Your task to perform on an android device: Search for "alienware area 51" on ebay.com, select the first entry, and add it to the cart. Image 0: 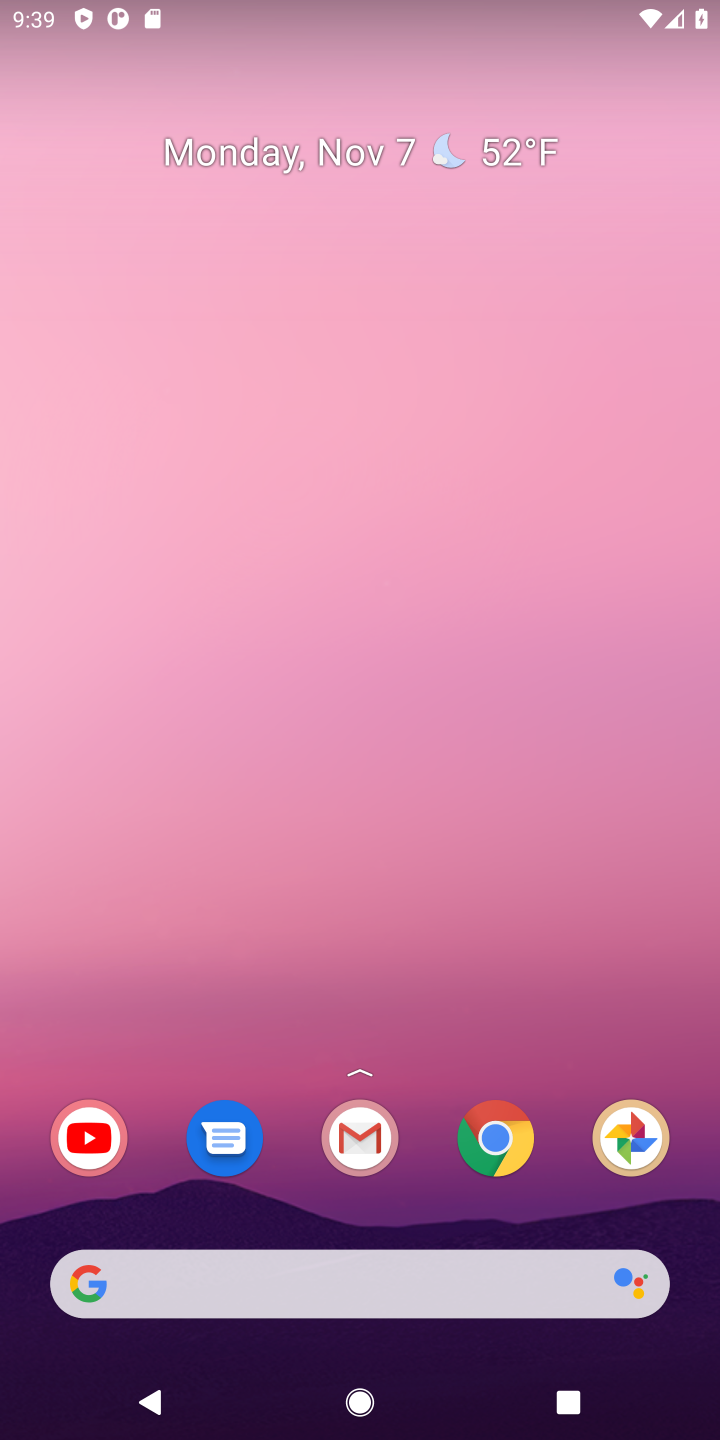
Step 0: drag from (425, 1129) to (428, 456)
Your task to perform on an android device: Search for "alienware area 51" on ebay.com, select the first entry, and add it to the cart. Image 1: 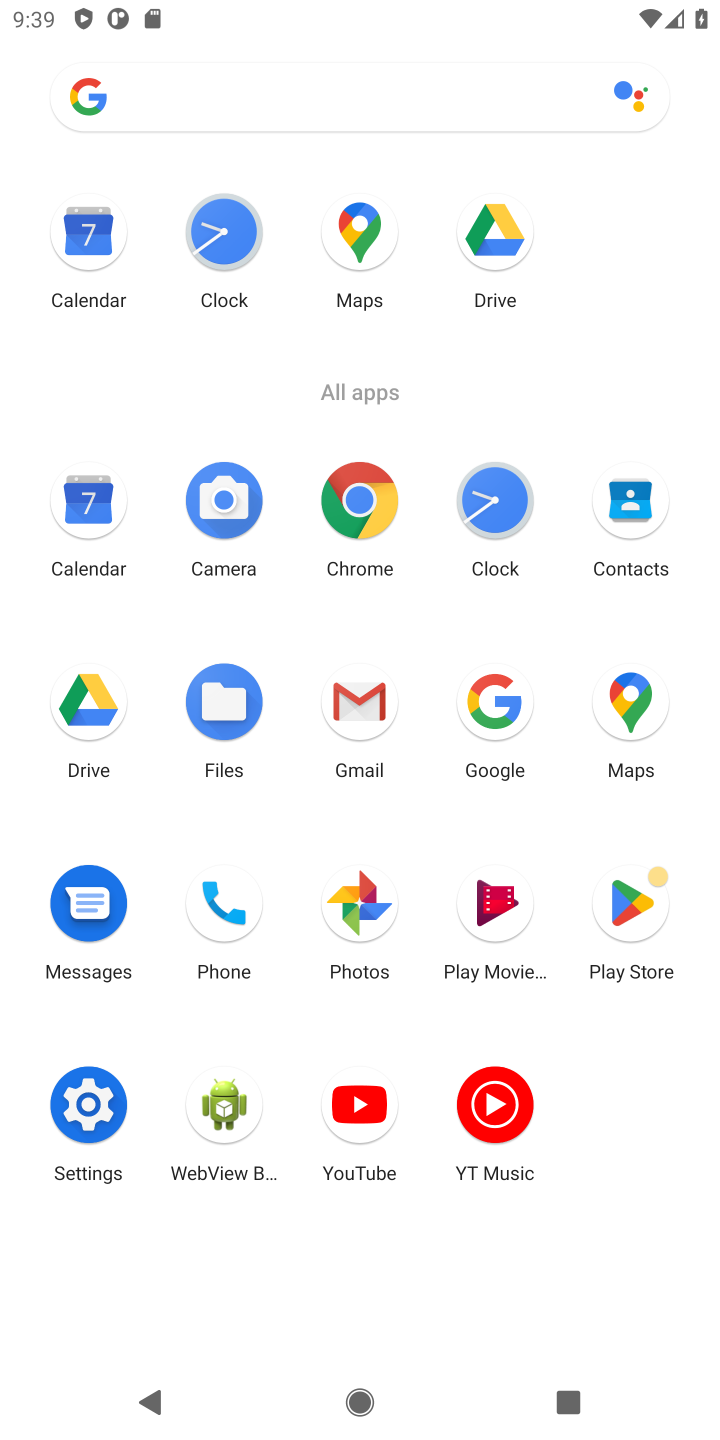
Step 1: click (509, 701)
Your task to perform on an android device: Search for "alienware area 51" on ebay.com, select the first entry, and add it to the cart. Image 2: 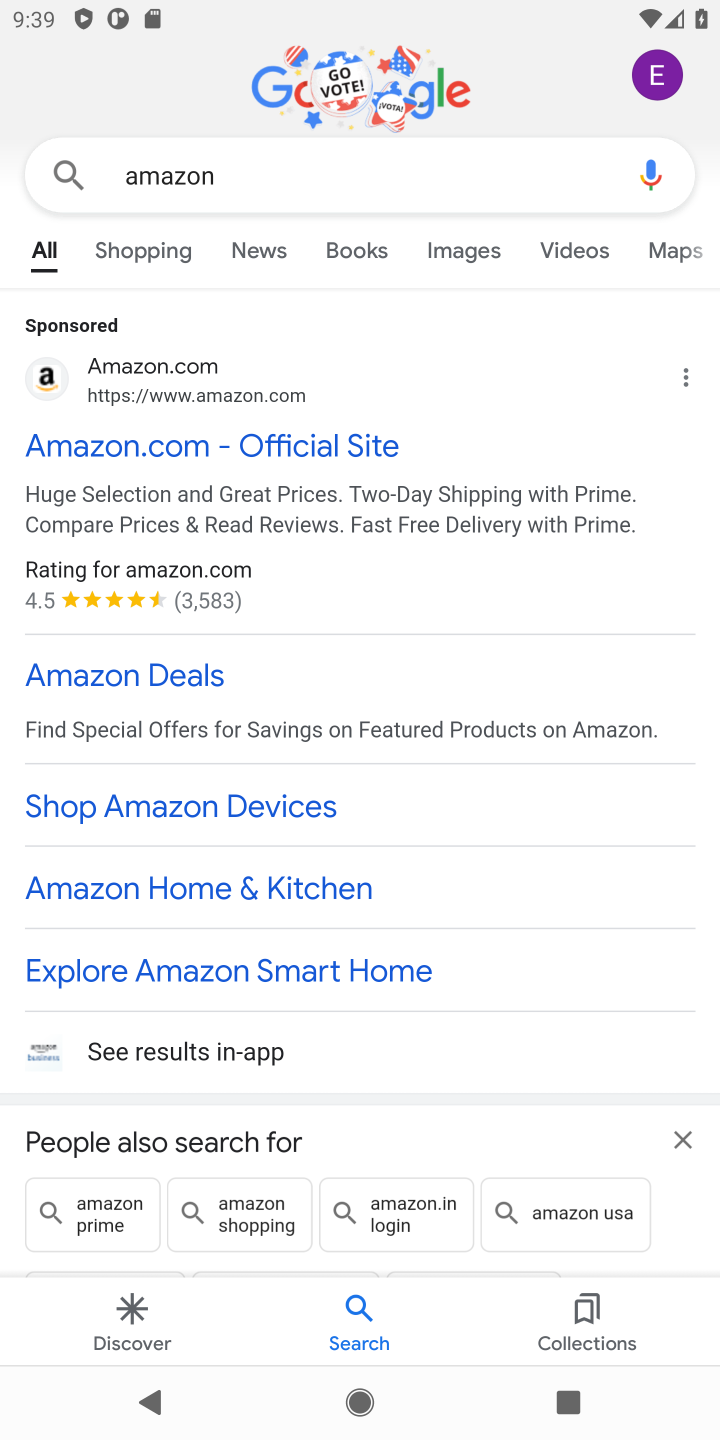
Step 2: click (371, 171)
Your task to perform on an android device: Search for "alienware area 51" on ebay.com, select the first entry, and add it to the cart. Image 3: 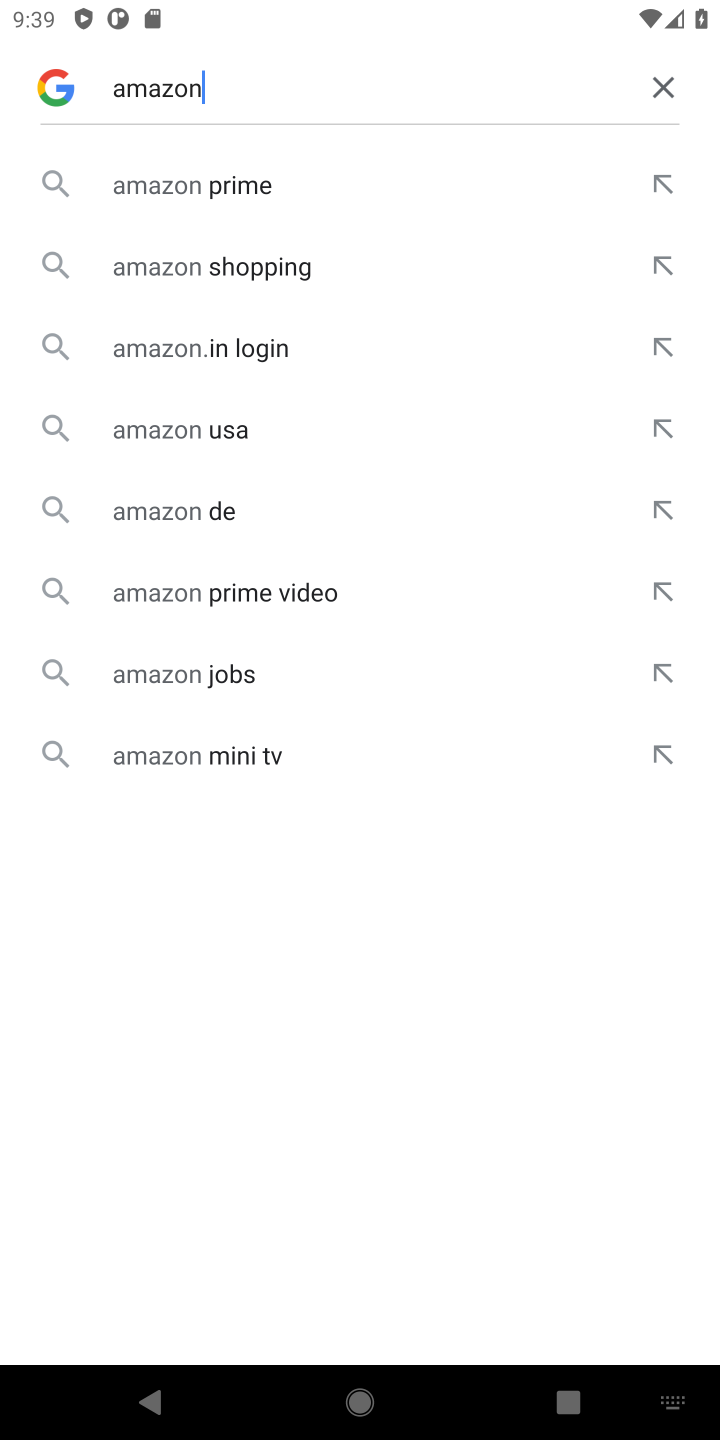
Step 3: click (662, 88)
Your task to perform on an android device: Search for "alienware area 51" on ebay.com, select the first entry, and add it to the cart. Image 4: 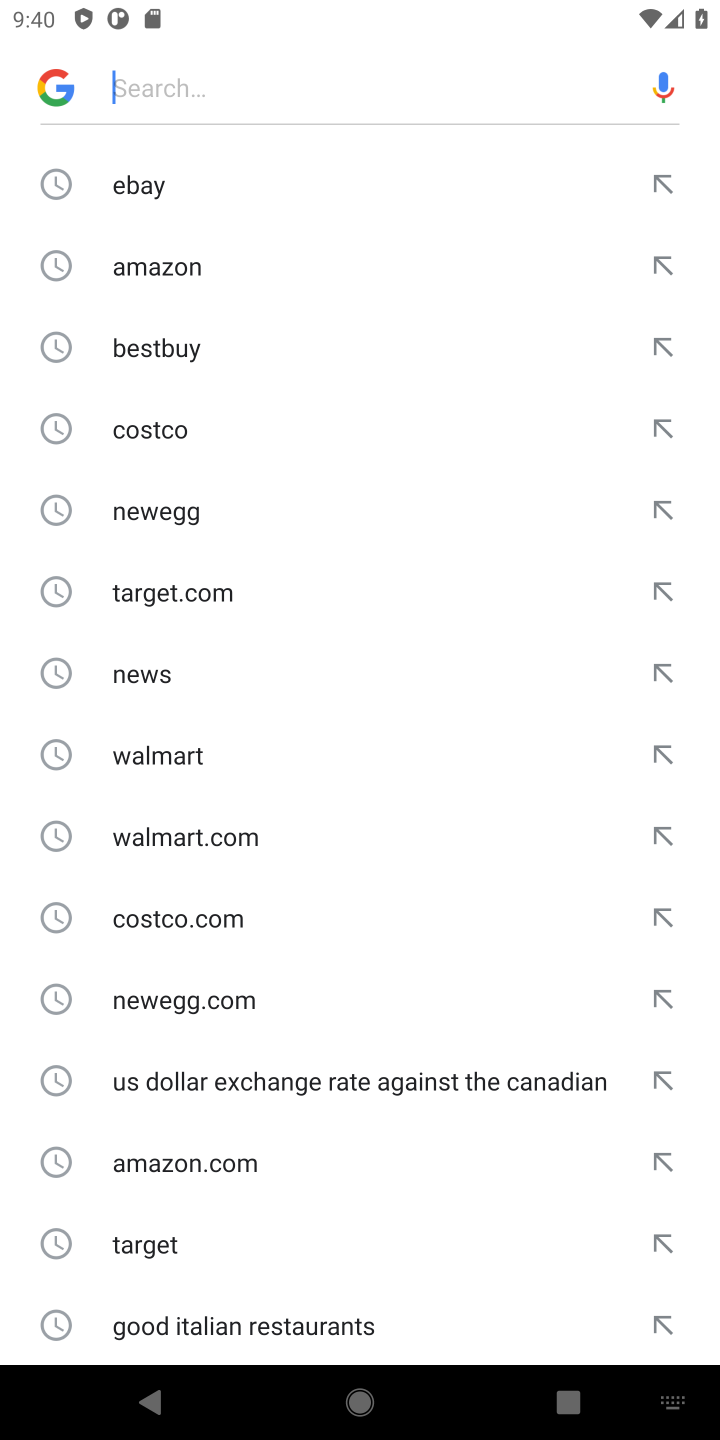
Step 4: type "ebay.com"
Your task to perform on an android device: Search for "alienware area 51" on ebay.com, select the first entry, and add it to the cart. Image 5: 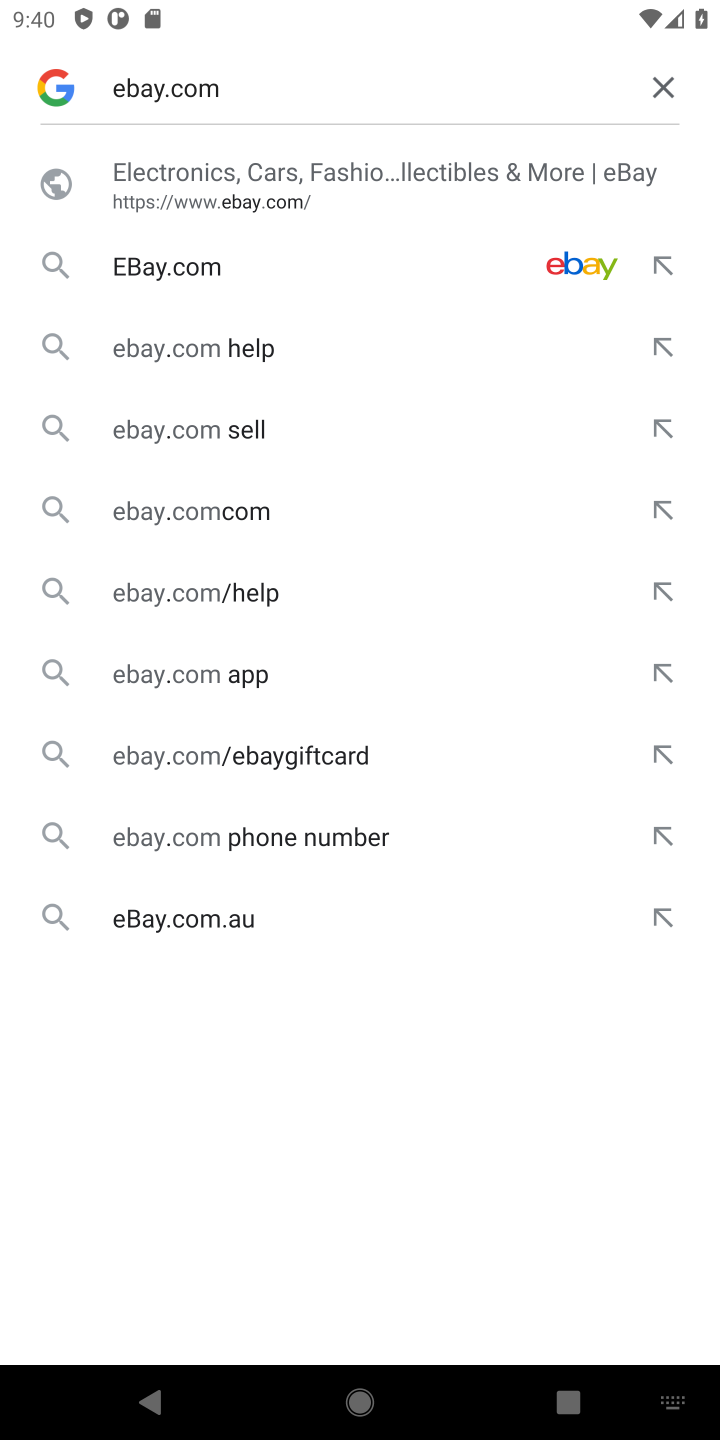
Step 5: click (349, 179)
Your task to perform on an android device: Search for "alienware area 51" on ebay.com, select the first entry, and add it to the cart. Image 6: 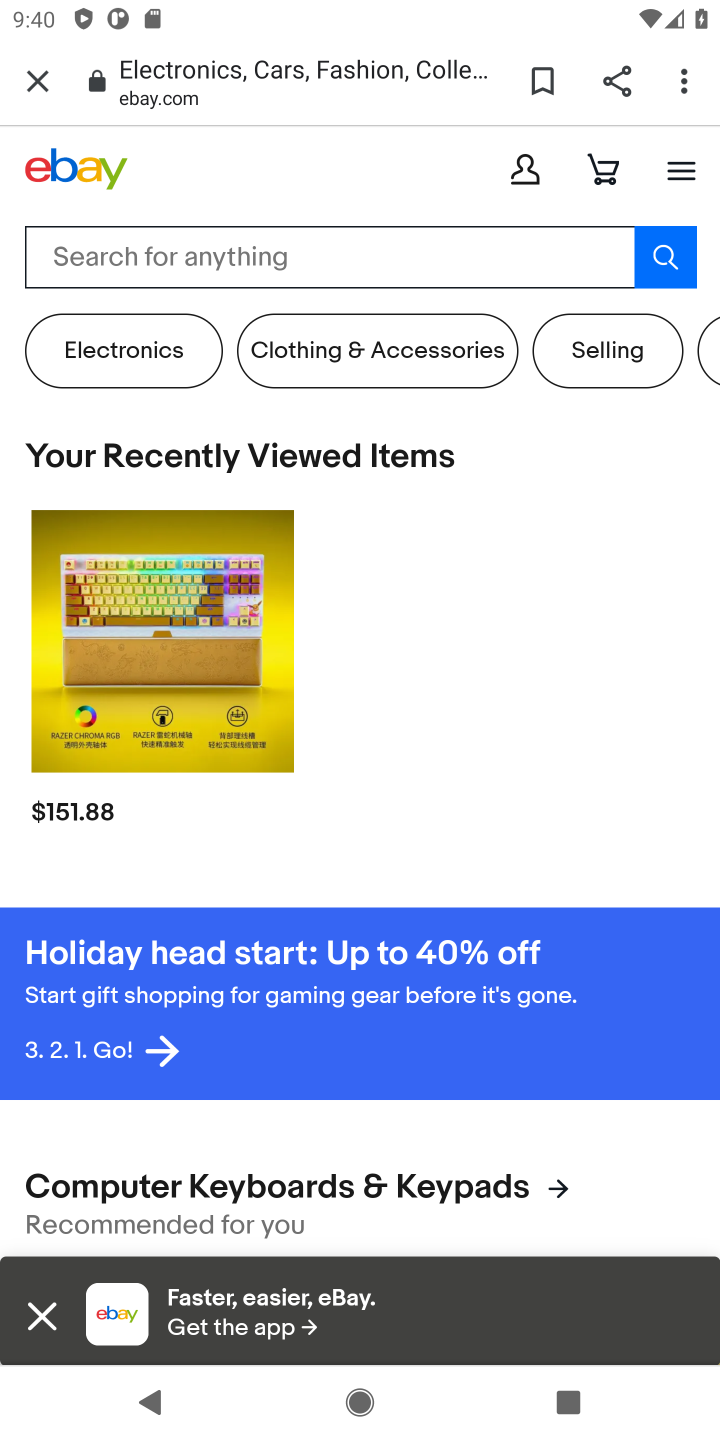
Step 6: click (270, 271)
Your task to perform on an android device: Search for "alienware area 51" on ebay.com, select the first entry, and add it to the cart. Image 7: 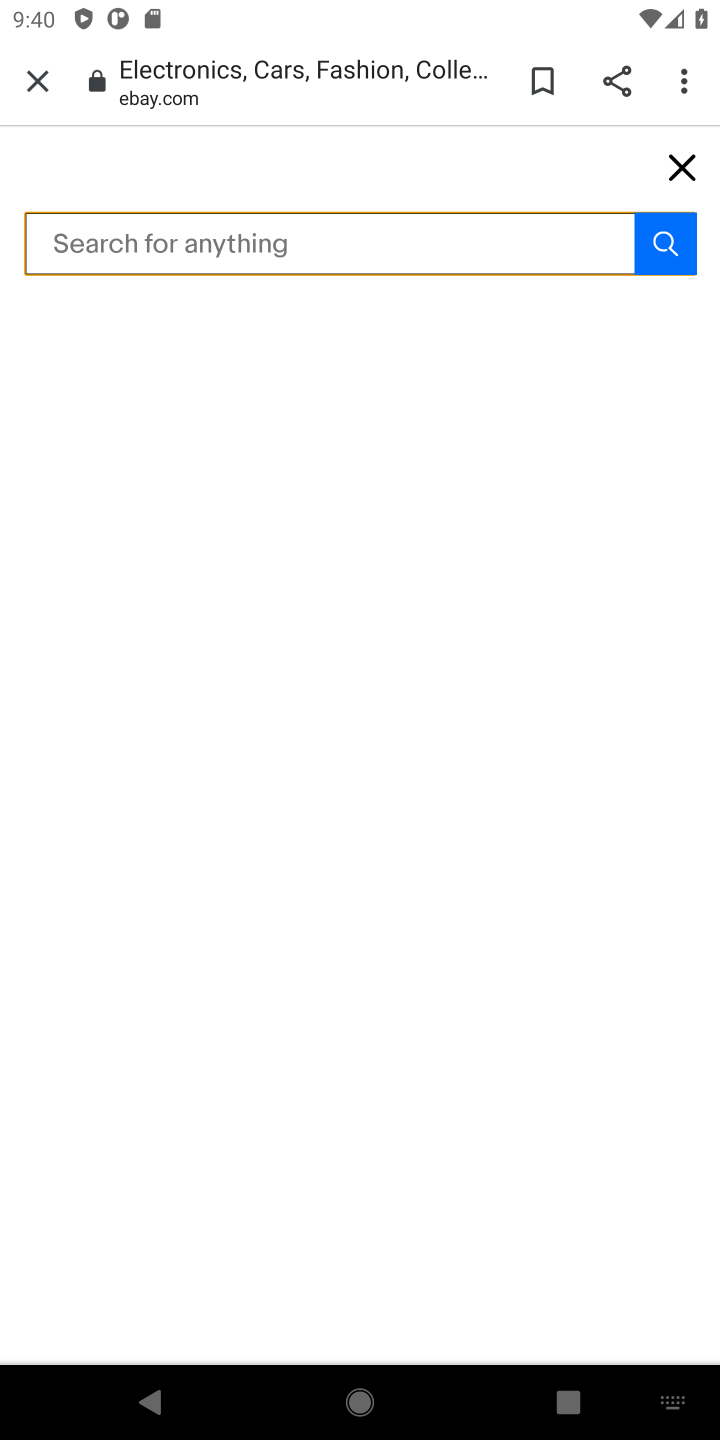
Step 7: type "alienware area 51"
Your task to perform on an android device: Search for "alienware area 51" on ebay.com, select the first entry, and add it to the cart. Image 8: 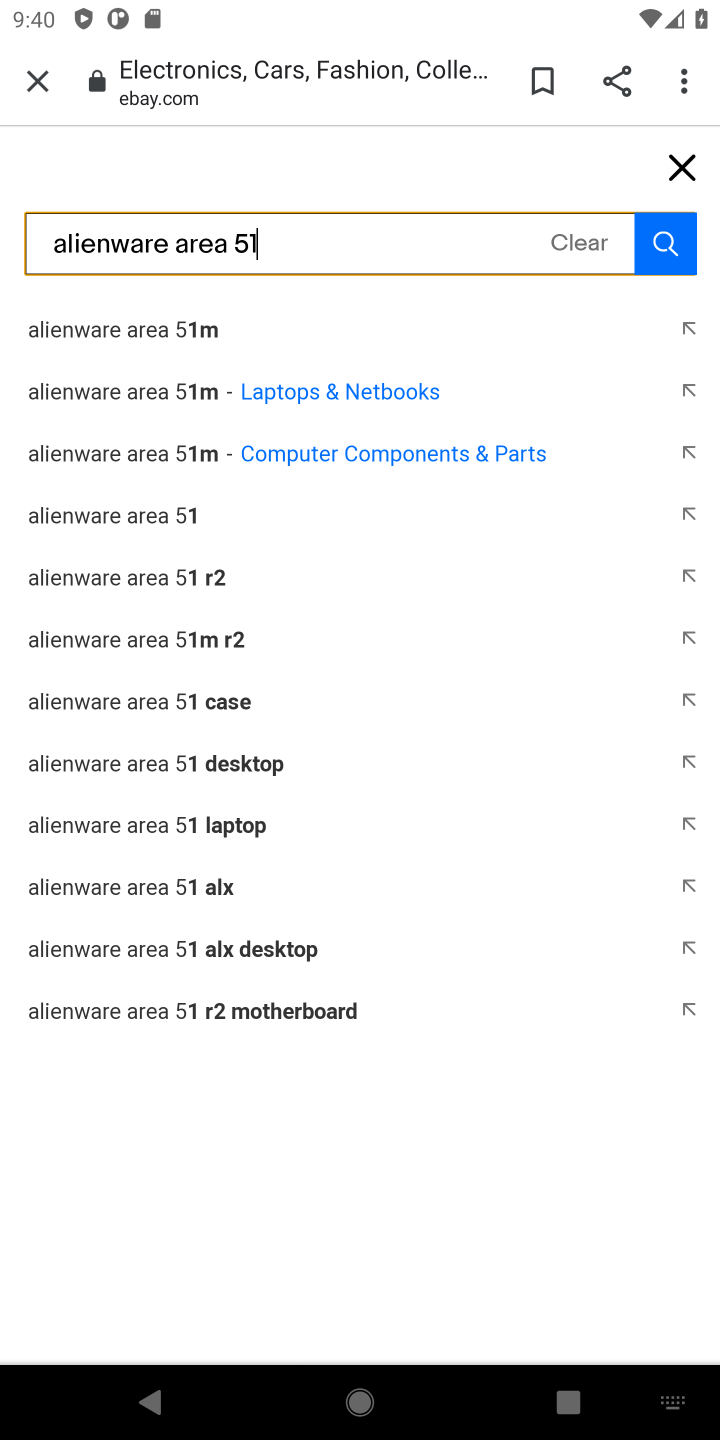
Step 8: click (156, 525)
Your task to perform on an android device: Search for "alienware area 51" on ebay.com, select the first entry, and add it to the cart. Image 9: 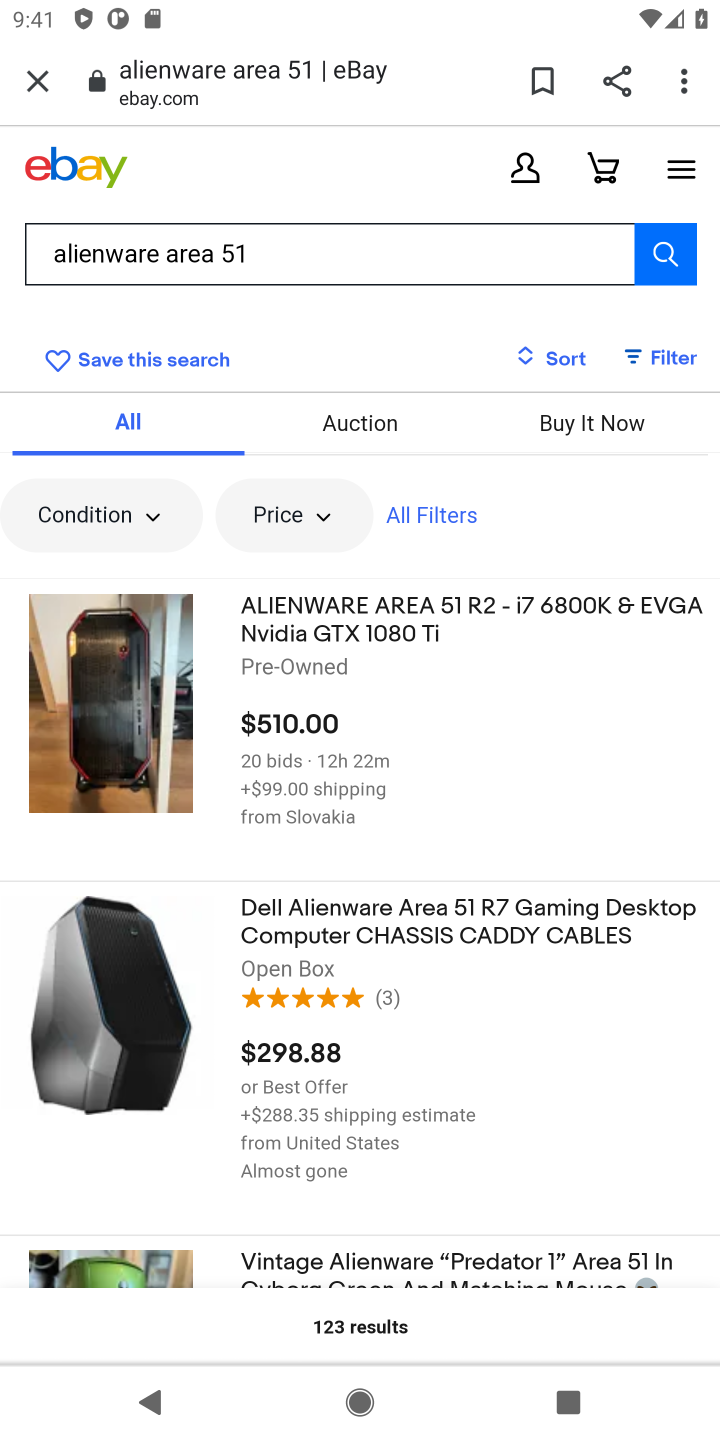
Step 9: click (293, 633)
Your task to perform on an android device: Search for "alienware area 51" on ebay.com, select the first entry, and add it to the cart. Image 10: 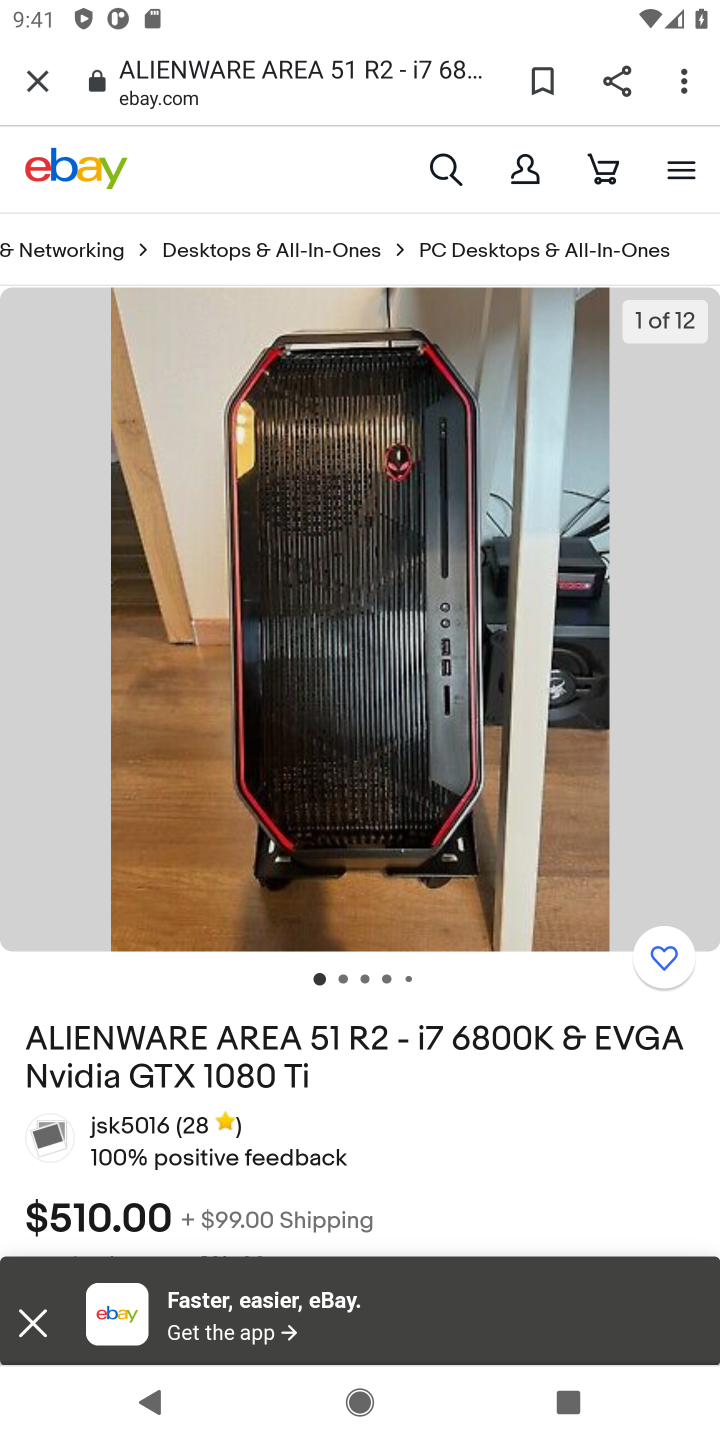
Step 10: drag from (336, 803) to (336, 662)
Your task to perform on an android device: Search for "alienware area 51" on ebay.com, select the first entry, and add it to the cart. Image 11: 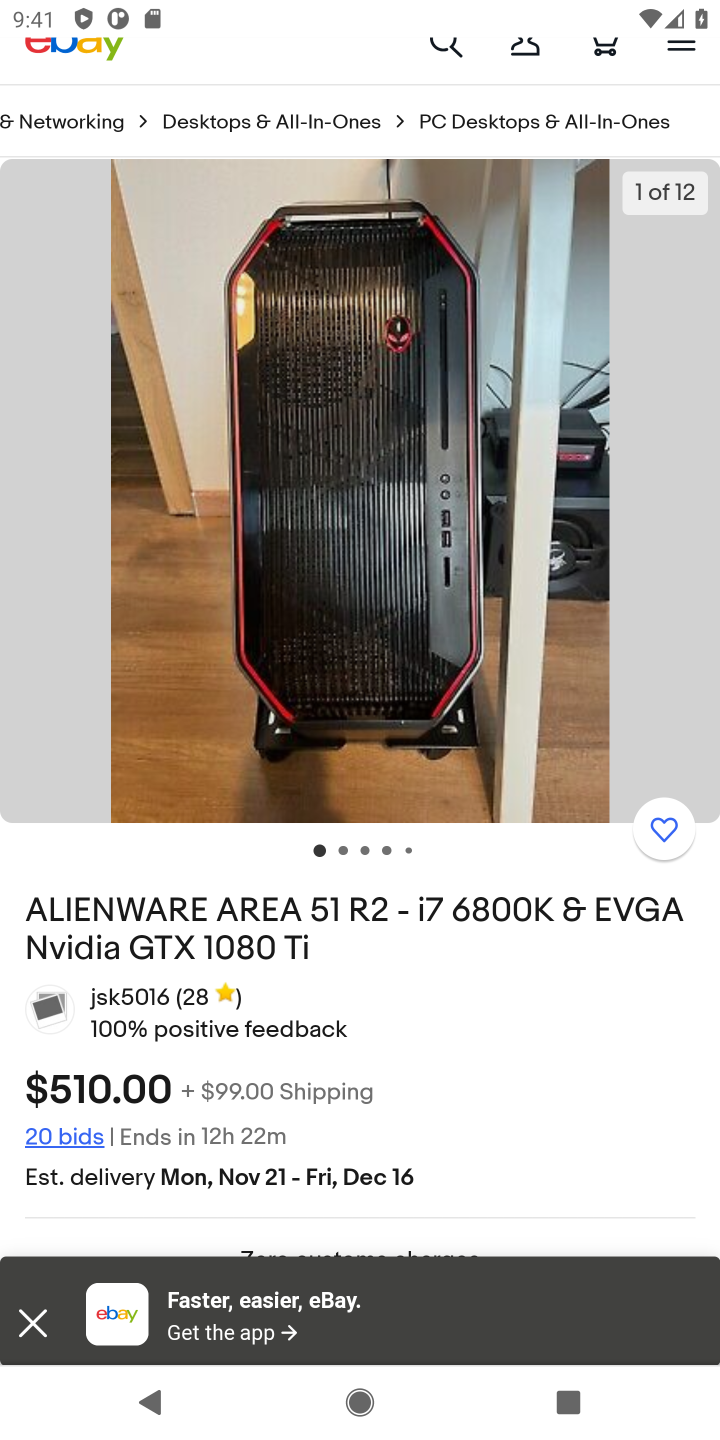
Step 11: drag from (441, 1070) to (433, 576)
Your task to perform on an android device: Search for "alienware area 51" on ebay.com, select the first entry, and add it to the cart. Image 12: 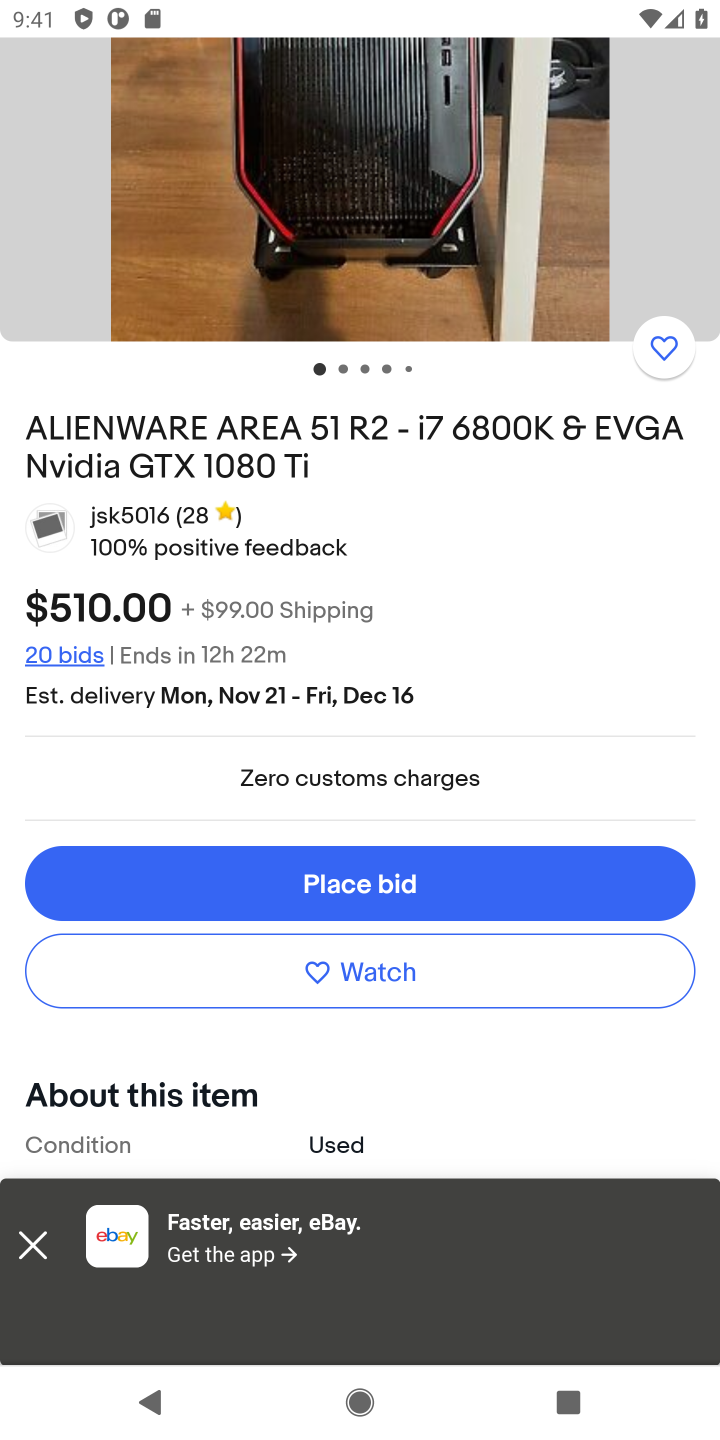
Step 12: click (372, 887)
Your task to perform on an android device: Search for "alienware area 51" on ebay.com, select the first entry, and add it to the cart. Image 13: 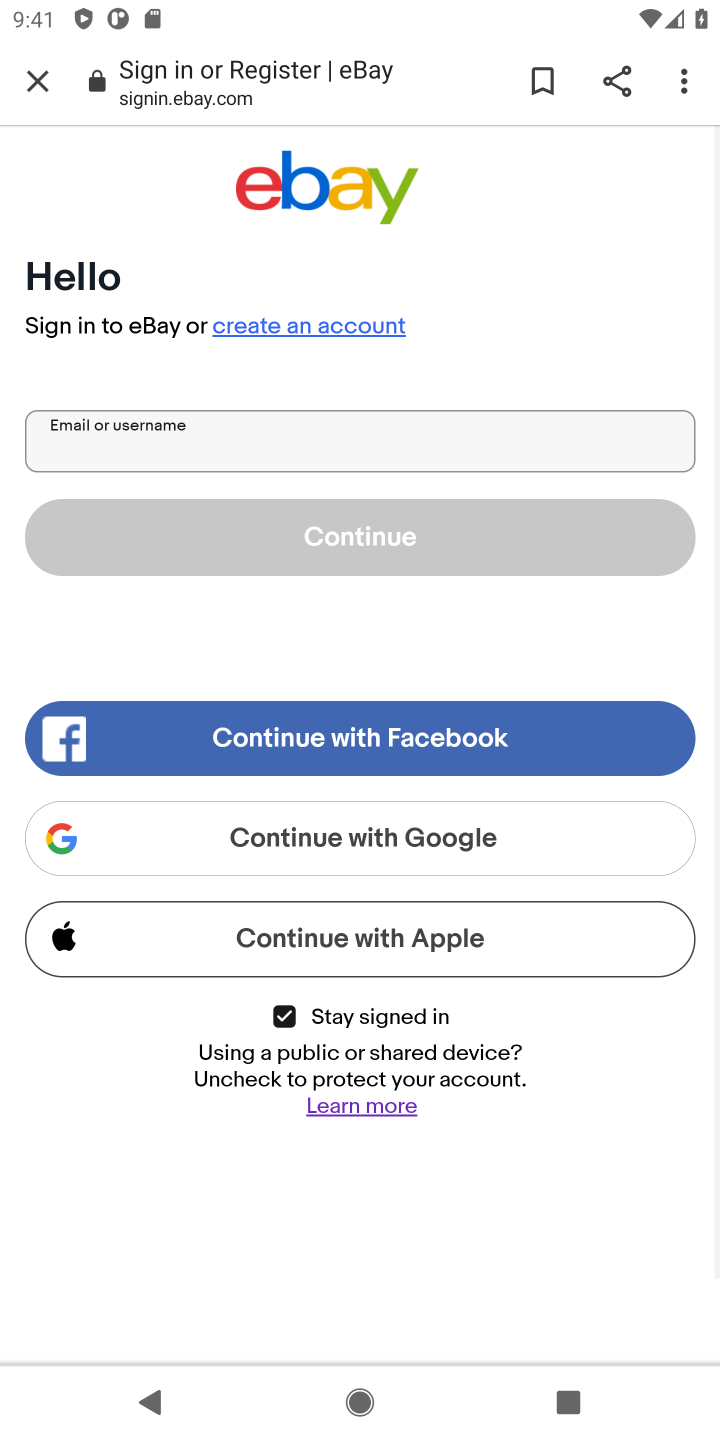
Step 13: task complete